Your task to perform on an android device: Open eBay Image 0: 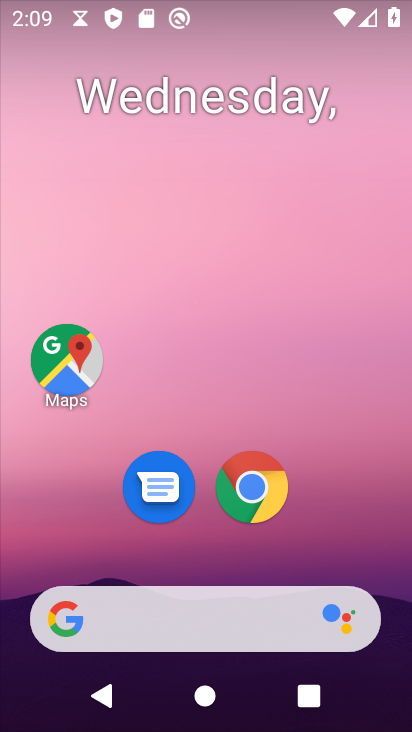
Step 0: click (216, 225)
Your task to perform on an android device: Open eBay Image 1: 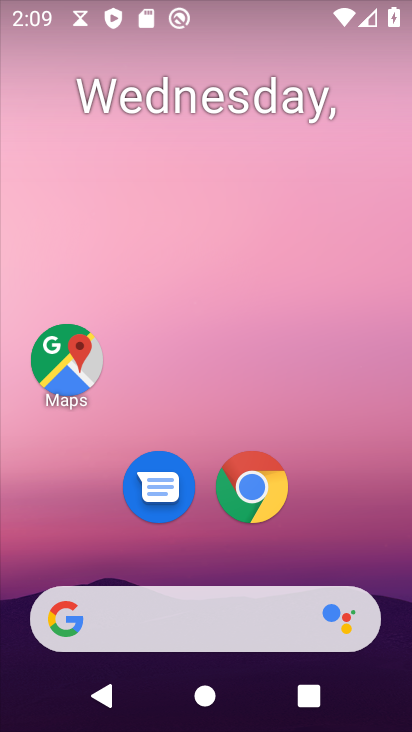
Step 1: drag from (261, 711) to (166, 137)
Your task to perform on an android device: Open eBay Image 2: 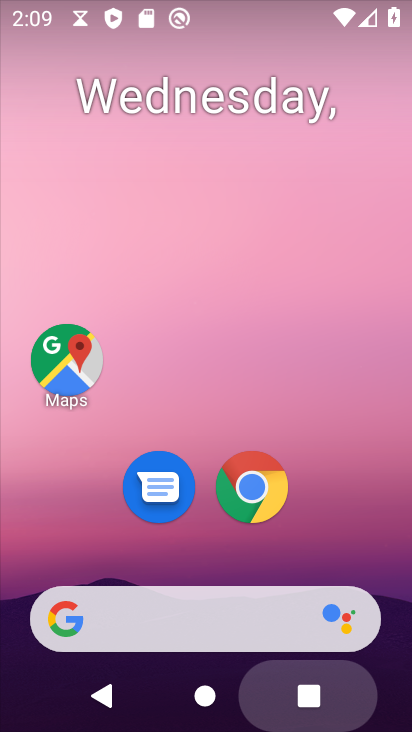
Step 2: drag from (282, 604) to (294, 286)
Your task to perform on an android device: Open eBay Image 3: 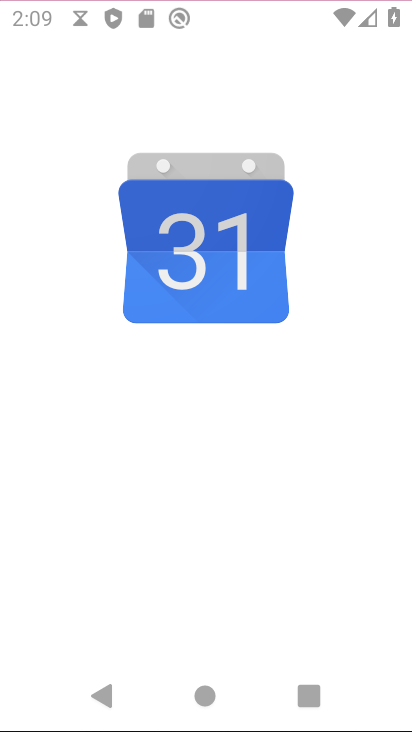
Step 3: drag from (318, 578) to (240, 98)
Your task to perform on an android device: Open eBay Image 4: 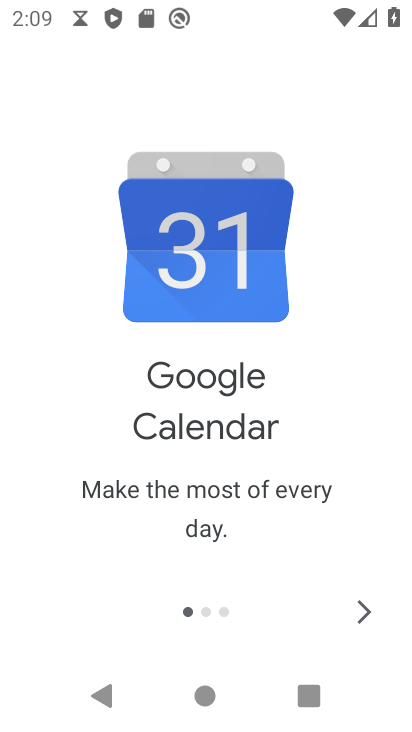
Step 4: press home button
Your task to perform on an android device: Open eBay Image 5: 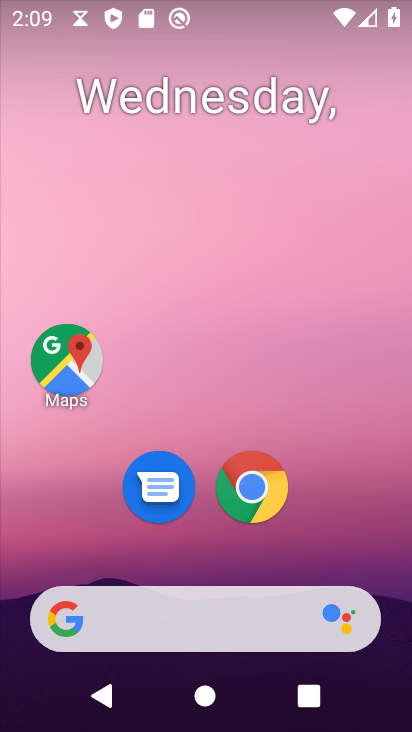
Step 5: drag from (216, 573) to (165, 86)
Your task to perform on an android device: Open eBay Image 6: 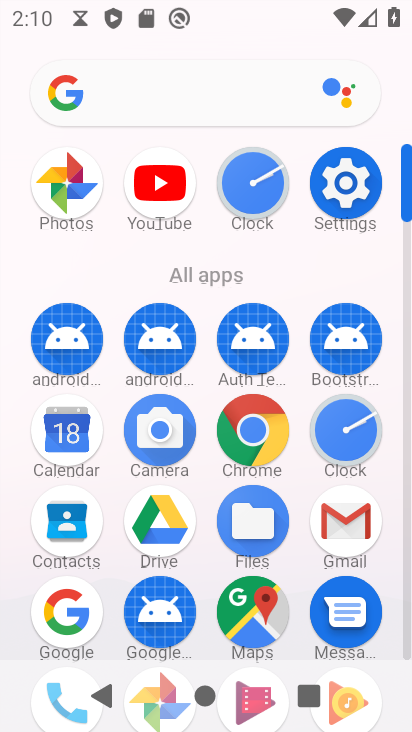
Step 6: click (257, 444)
Your task to perform on an android device: Open eBay Image 7: 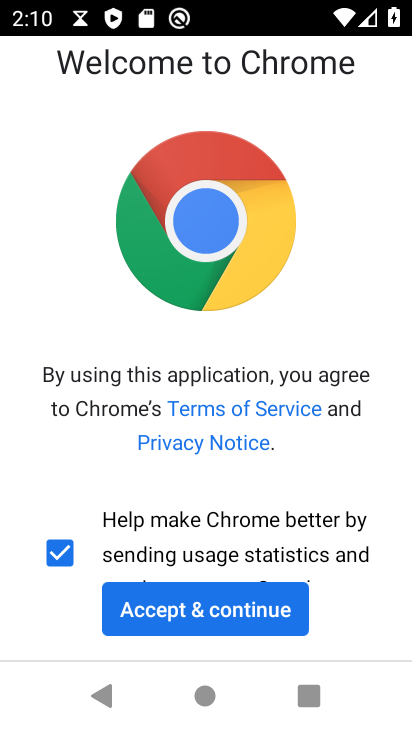
Step 7: click (199, 600)
Your task to perform on an android device: Open eBay Image 8: 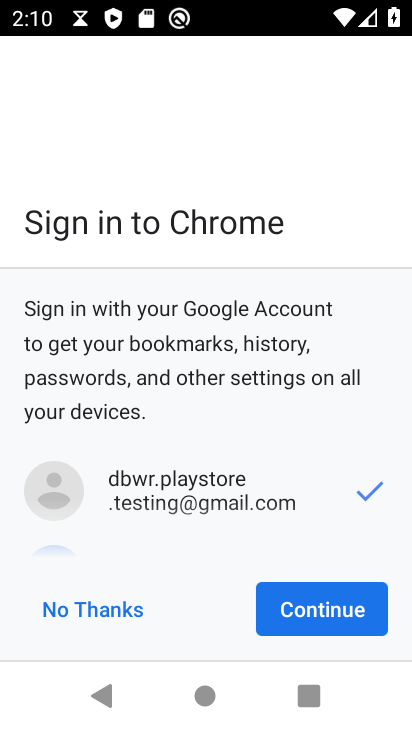
Step 8: click (306, 606)
Your task to perform on an android device: Open eBay Image 9: 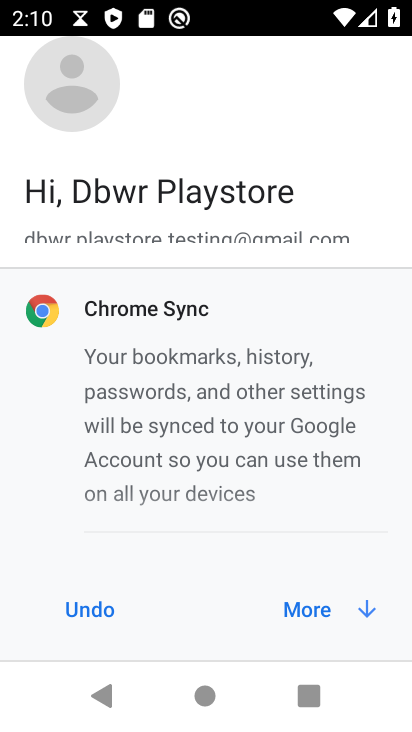
Step 9: click (317, 615)
Your task to perform on an android device: Open eBay Image 10: 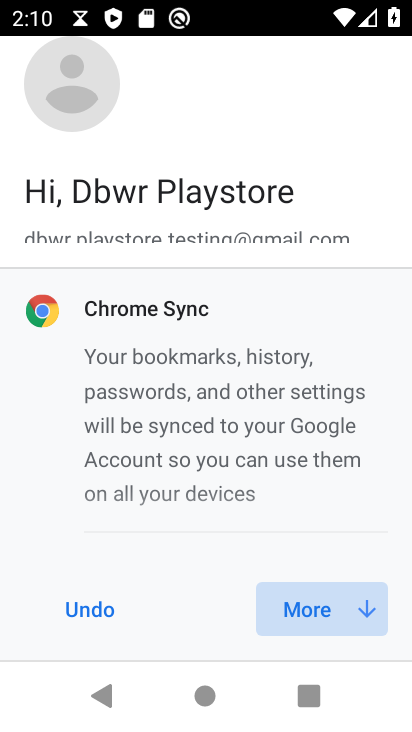
Step 10: click (317, 615)
Your task to perform on an android device: Open eBay Image 11: 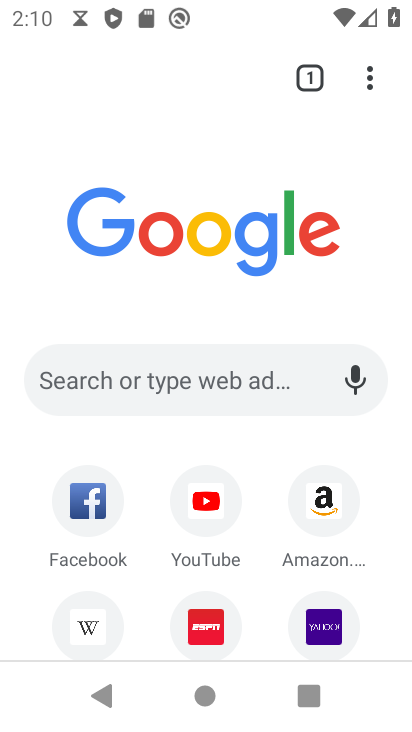
Step 11: drag from (242, 509) to (214, 223)
Your task to perform on an android device: Open eBay Image 12: 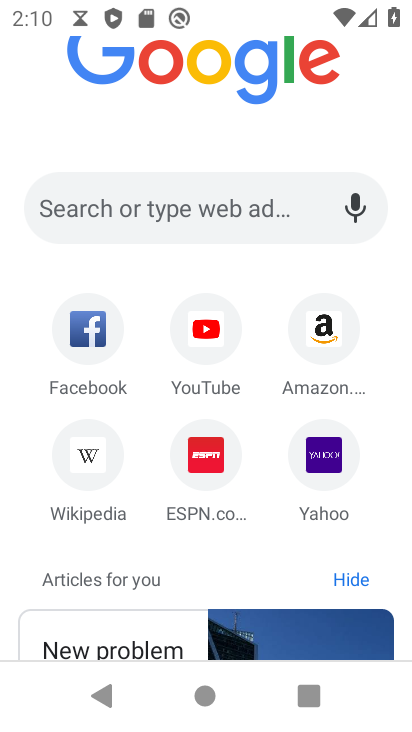
Step 12: click (86, 210)
Your task to perform on an android device: Open eBay Image 13: 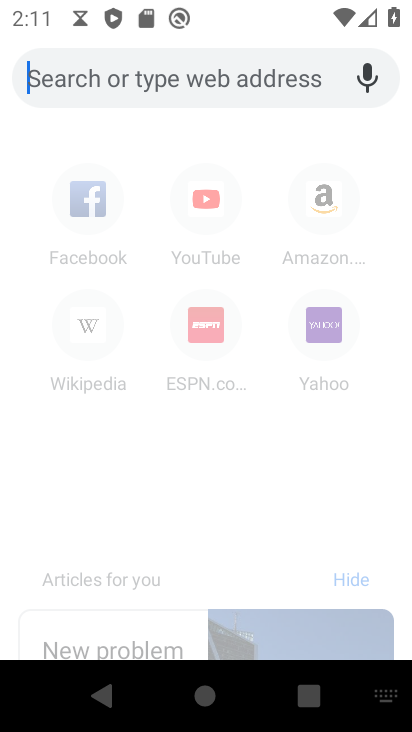
Step 13: type "ebay.com"
Your task to perform on an android device: Open eBay Image 14: 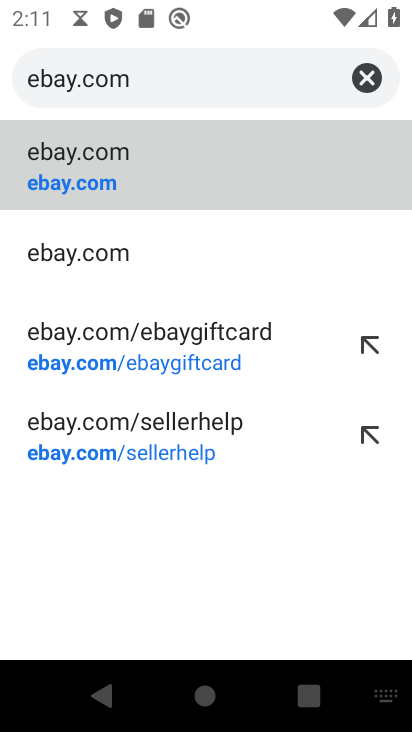
Step 14: click (66, 192)
Your task to perform on an android device: Open eBay Image 15: 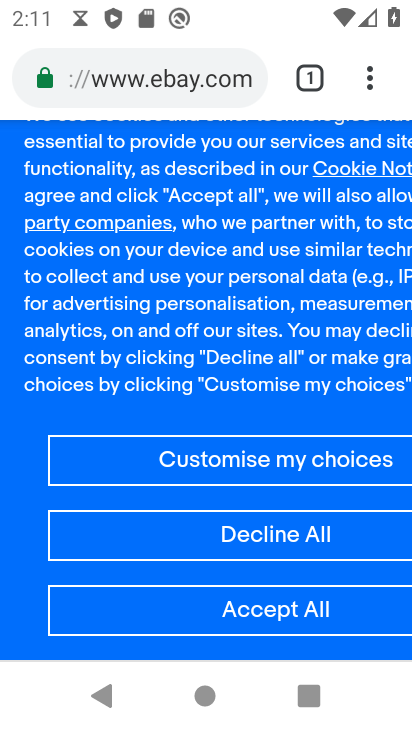
Step 15: task complete